Your task to perform on an android device: delete a single message in the gmail app Image 0: 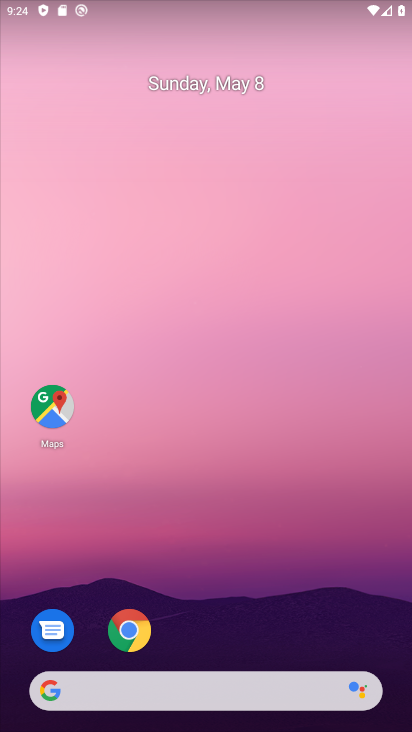
Step 0: drag from (229, 552) to (310, 84)
Your task to perform on an android device: delete a single message in the gmail app Image 1: 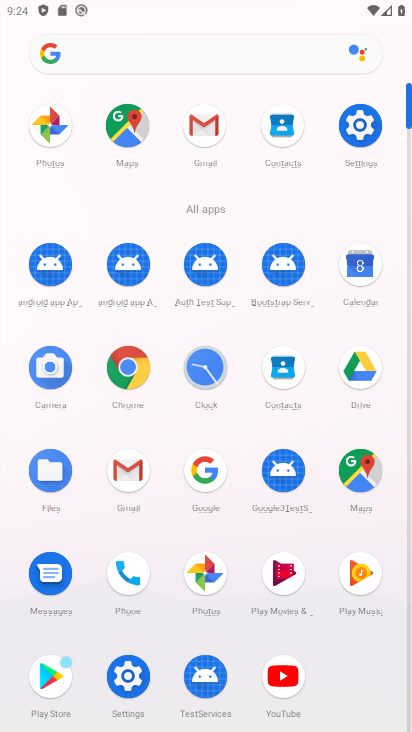
Step 1: click (208, 124)
Your task to perform on an android device: delete a single message in the gmail app Image 2: 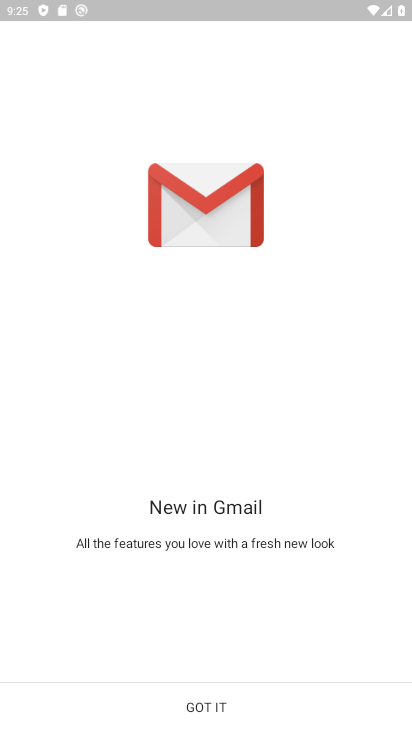
Step 2: click (200, 720)
Your task to perform on an android device: delete a single message in the gmail app Image 3: 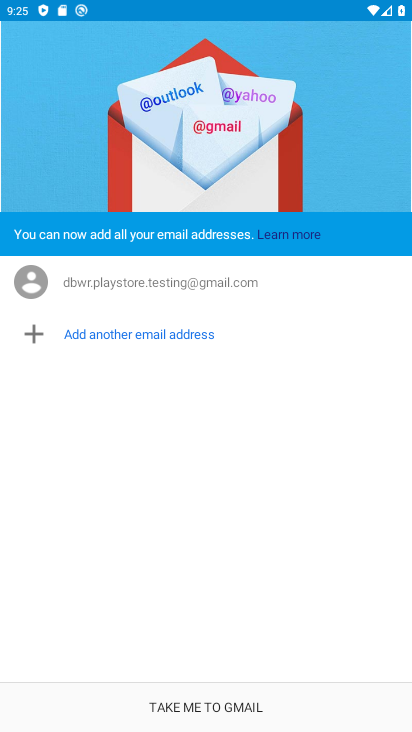
Step 3: click (202, 707)
Your task to perform on an android device: delete a single message in the gmail app Image 4: 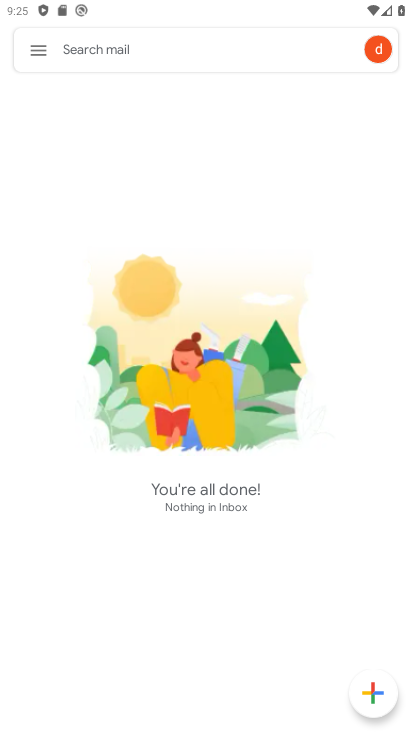
Step 4: click (33, 47)
Your task to perform on an android device: delete a single message in the gmail app Image 5: 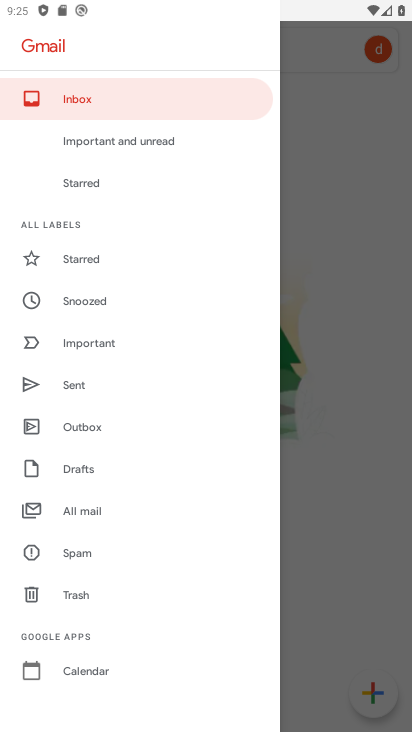
Step 5: click (77, 498)
Your task to perform on an android device: delete a single message in the gmail app Image 6: 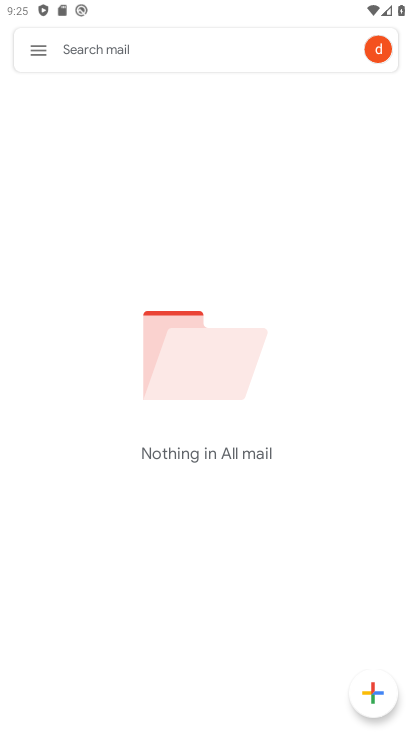
Step 6: task complete